Your task to perform on an android device: Go to network settings Image 0: 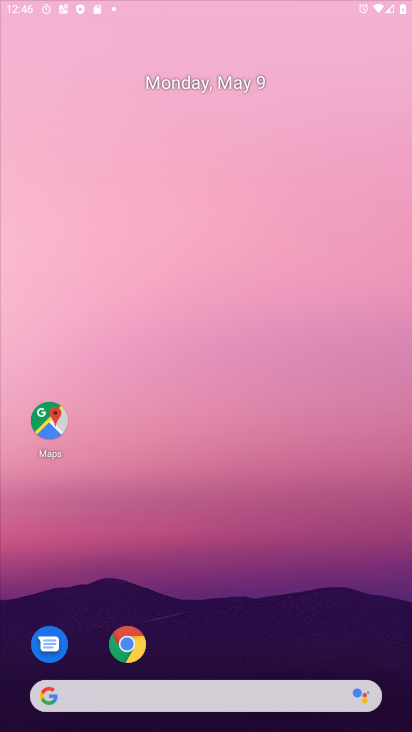
Step 0: click (239, 124)
Your task to perform on an android device: Go to network settings Image 1: 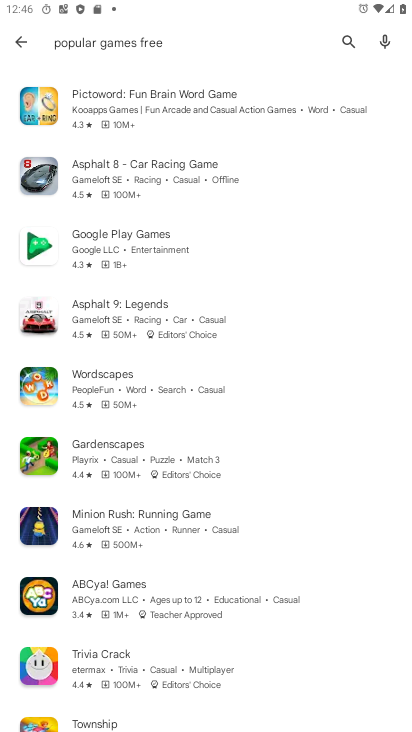
Step 1: click (20, 36)
Your task to perform on an android device: Go to network settings Image 2: 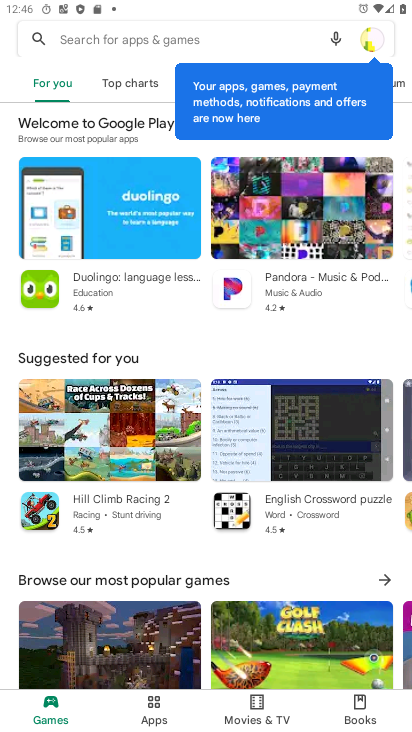
Step 2: press home button
Your task to perform on an android device: Go to network settings Image 3: 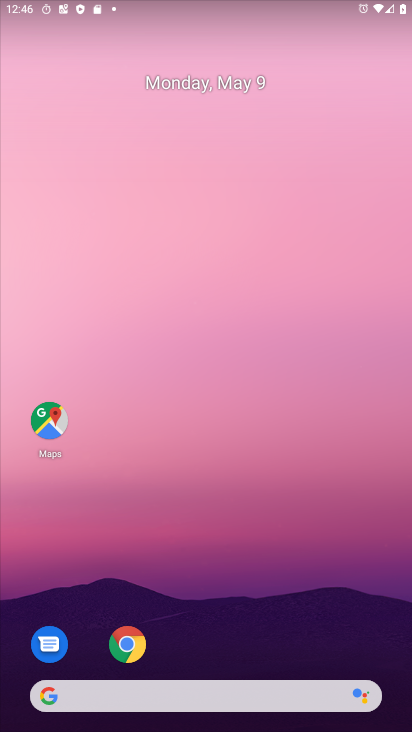
Step 3: drag from (281, 643) to (192, 163)
Your task to perform on an android device: Go to network settings Image 4: 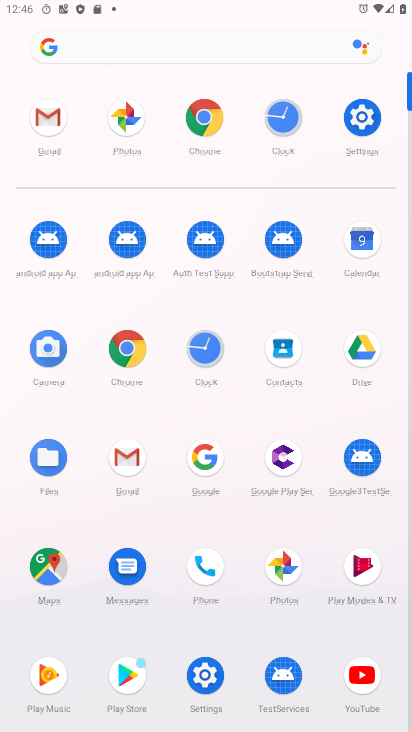
Step 4: drag from (254, 521) to (209, 160)
Your task to perform on an android device: Go to network settings Image 5: 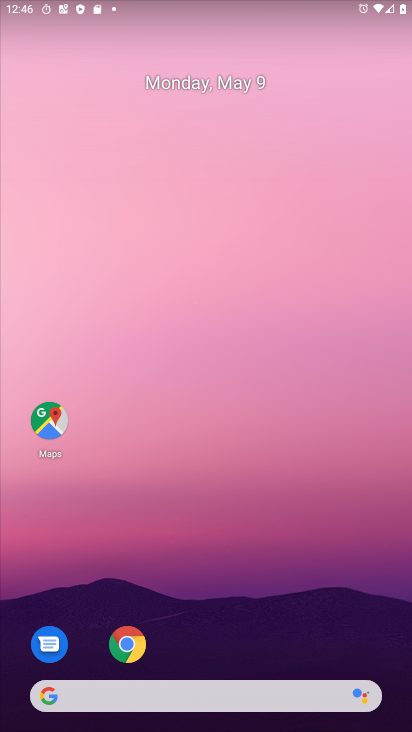
Step 5: drag from (263, 581) to (56, 104)
Your task to perform on an android device: Go to network settings Image 6: 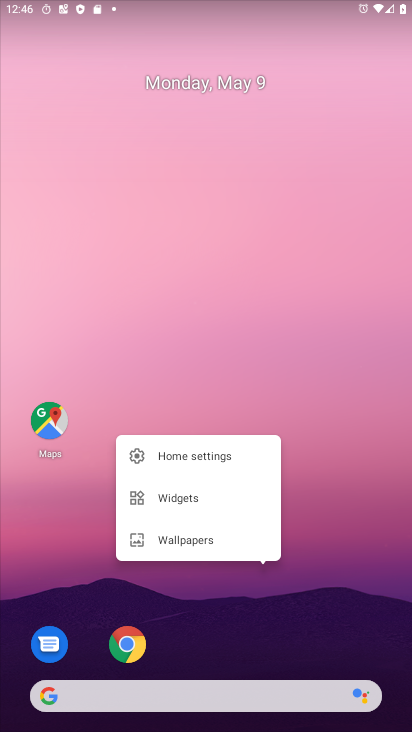
Step 6: drag from (372, 529) to (274, 131)
Your task to perform on an android device: Go to network settings Image 7: 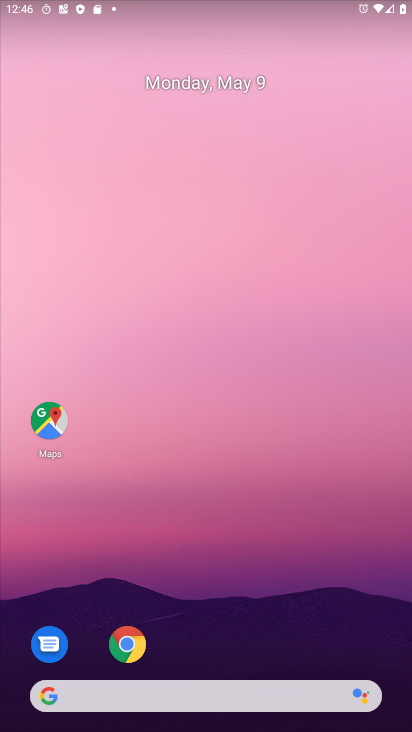
Step 7: drag from (284, 556) to (85, 169)
Your task to perform on an android device: Go to network settings Image 8: 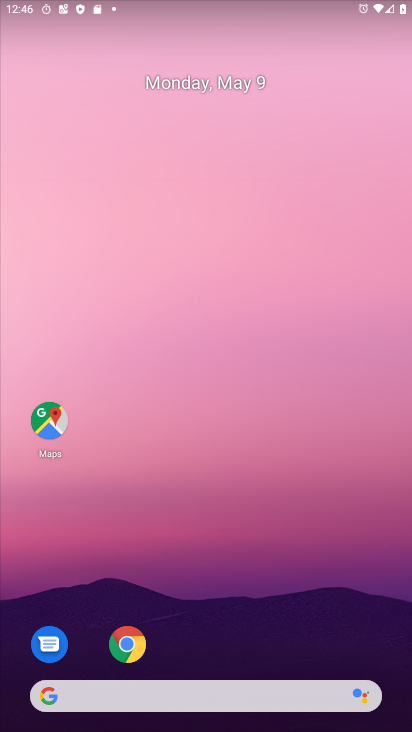
Step 8: drag from (279, 527) to (155, 141)
Your task to perform on an android device: Go to network settings Image 9: 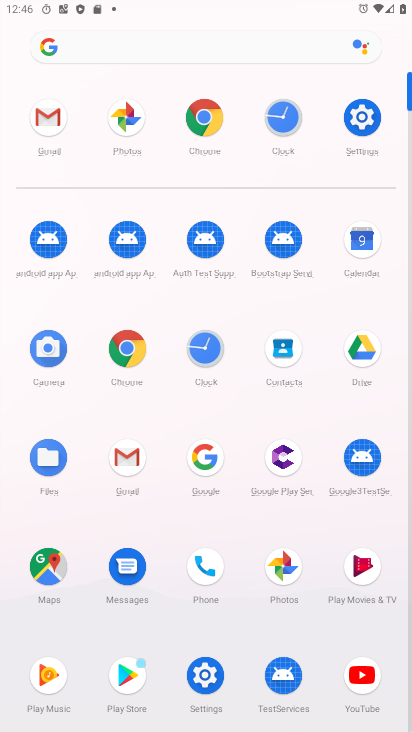
Step 9: click (356, 116)
Your task to perform on an android device: Go to network settings Image 10: 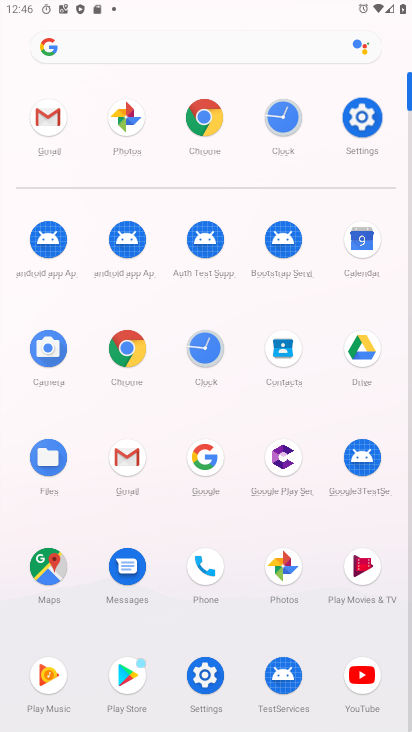
Step 10: click (356, 116)
Your task to perform on an android device: Go to network settings Image 11: 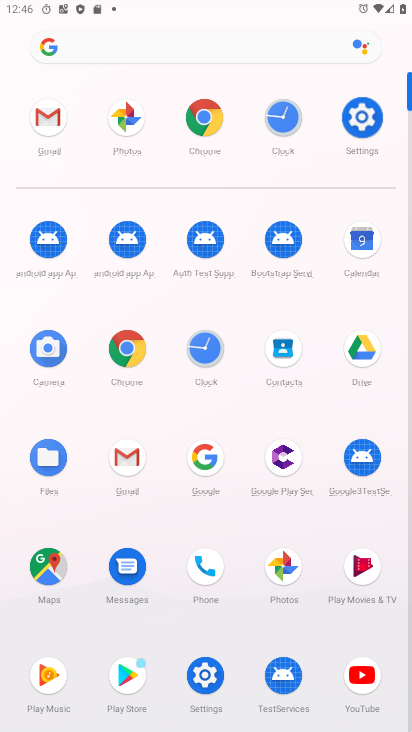
Step 11: click (358, 116)
Your task to perform on an android device: Go to network settings Image 12: 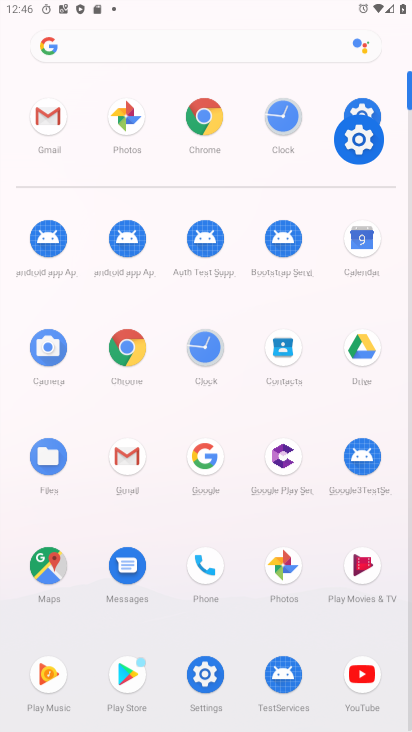
Step 12: click (358, 116)
Your task to perform on an android device: Go to network settings Image 13: 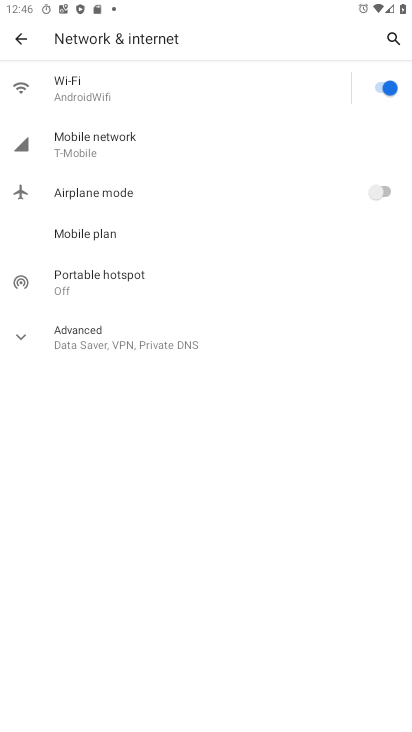
Step 13: task complete